Your task to perform on an android device: Open the calendar and show me this week's events? Image 0: 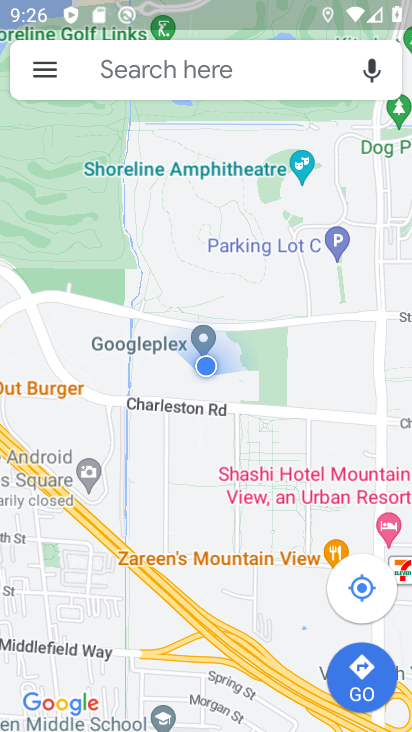
Step 0: press home button
Your task to perform on an android device: Open the calendar and show me this week's events? Image 1: 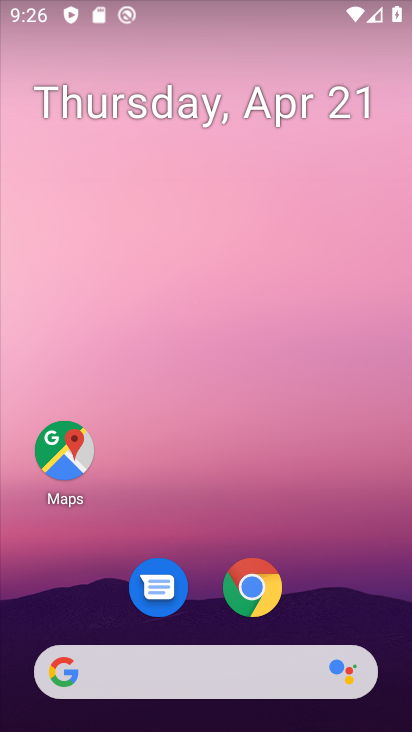
Step 1: drag from (139, 509) to (363, 295)
Your task to perform on an android device: Open the calendar and show me this week's events? Image 2: 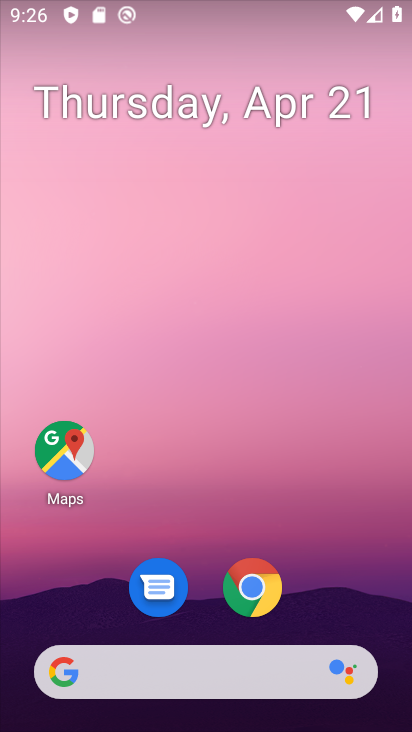
Step 2: drag from (135, 486) to (321, 237)
Your task to perform on an android device: Open the calendar and show me this week's events? Image 3: 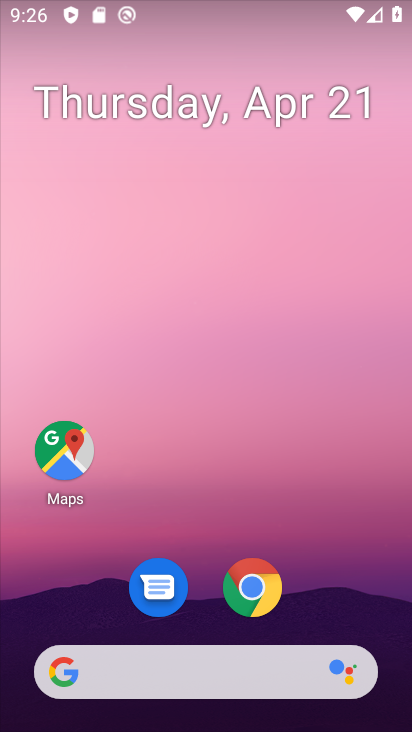
Step 3: drag from (0, 676) to (313, 189)
Your task to perform on an android device: Open the calendar and show me this week's events? Image 4: 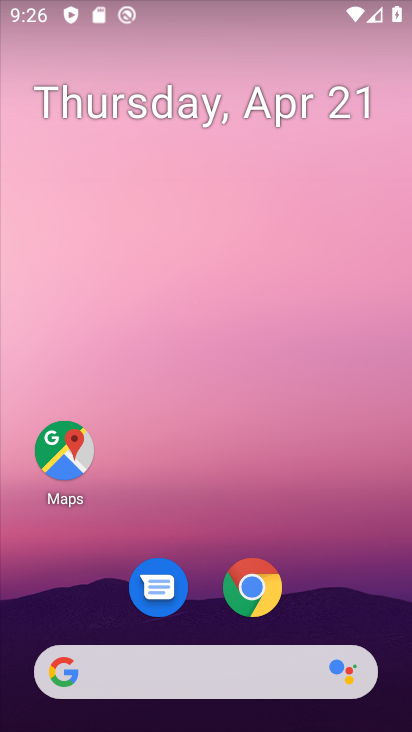
Step 4: drag from (105, 467) to (237, 276)
Your task to perform on an android device: Open the calendar and show me this week's events? Image 5: 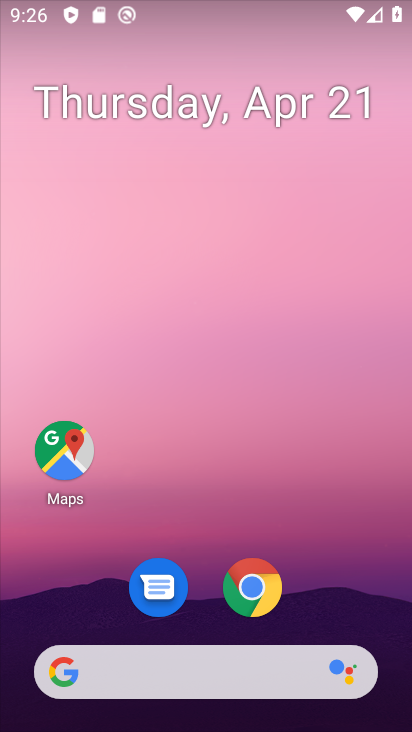
Step 5: drag from (0, 616) to (312, 257)
Your task to perform on an android device: Open the calendar and show me this week's events? Image 6: 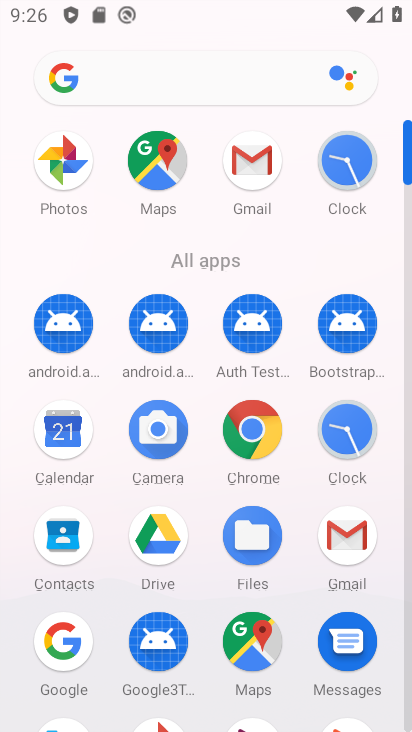
Step 6: click (53, 426)
Your task to perform on an android device: Open the calendar and show me this week's events? Image 7: 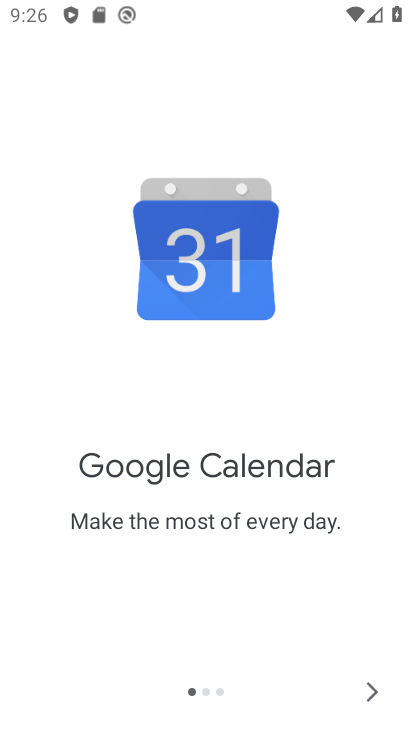
Step 7: click (364, 693)
Your task to perform on an android device: Open the calendar and show me this week's events? Image 8: 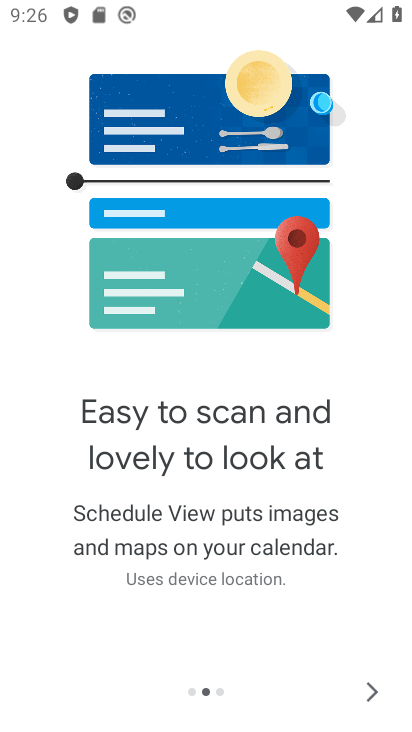
Step 8: click (364, 693)
Your task to perform on an android device: Open the calendar and show me this week's events? Image 9: 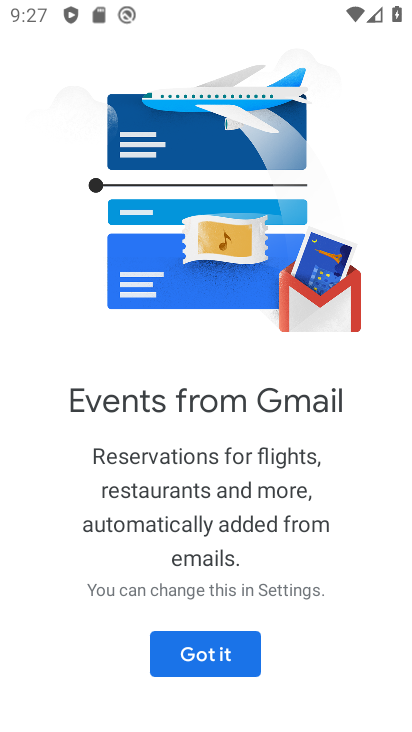
Step 9: click (186, 647)
Your task to perform on an android device: Open the calendar and show me this week's events? Image 10: 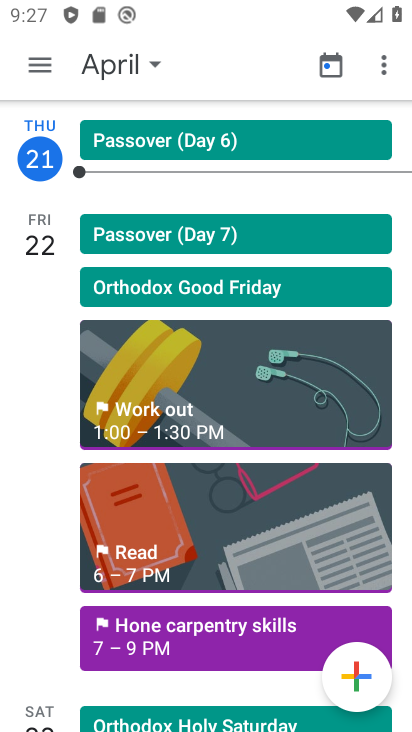
Step 10: click (106, 57)
Your task to perform on an android device: Open the calendar and show me this week's events? Image 11: 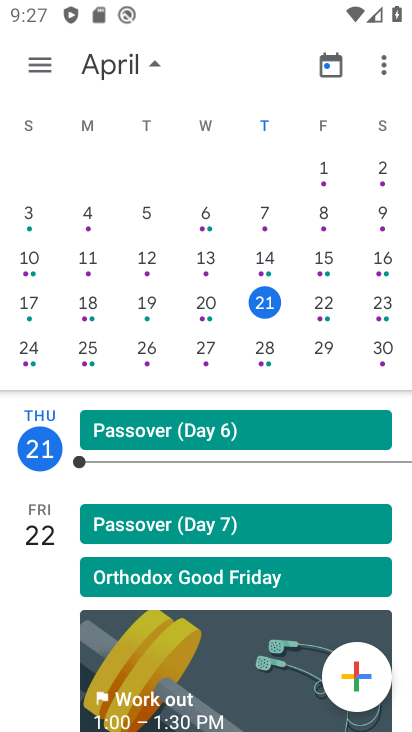
Step 11: click (36, 344)
Your task to perform on an android device: Open the calendar and show me this week's events? Image 12: 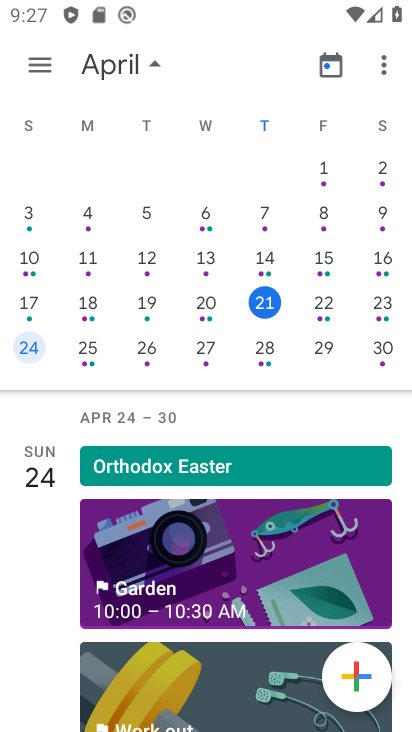
Step 12: click (93, 350)
Your task to perform on an android device: Open the calendar and show me this week's events? Image 13: 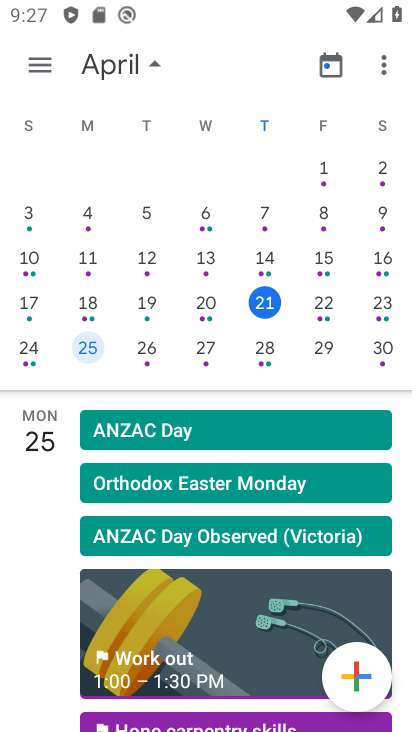
Step 13: click (143, 349)
Your task to perform on an android device: Open the calendar and show me this week's events? Image 14: 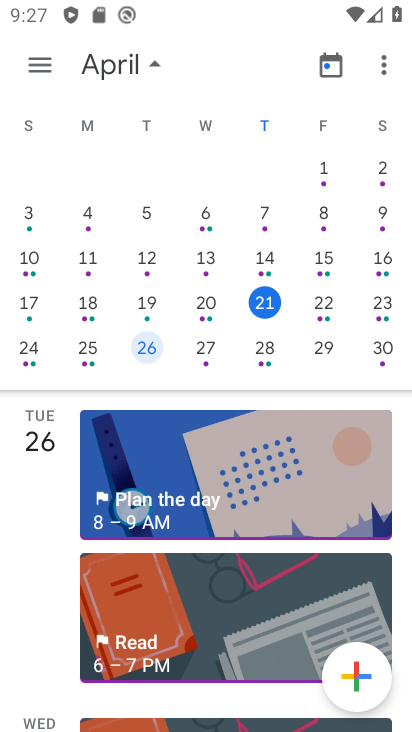
Step 14: task complete